Your task to perform on an android device: Open Google Chrome Image 0: 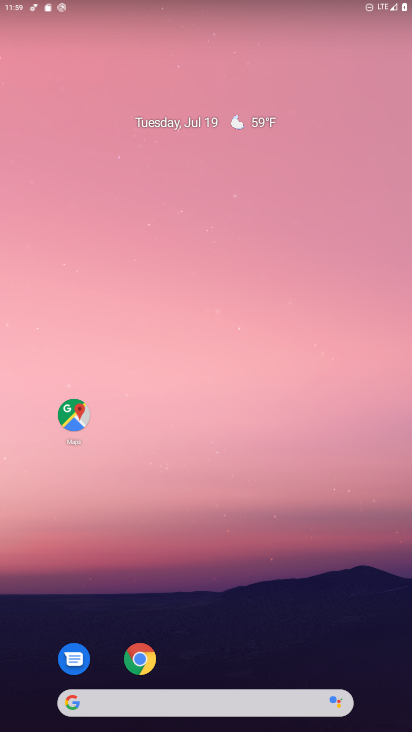
Step 0: drag from (325, 629) to (297, 144)
Your task to perform on an android device: Open Google Chrome Image 1: 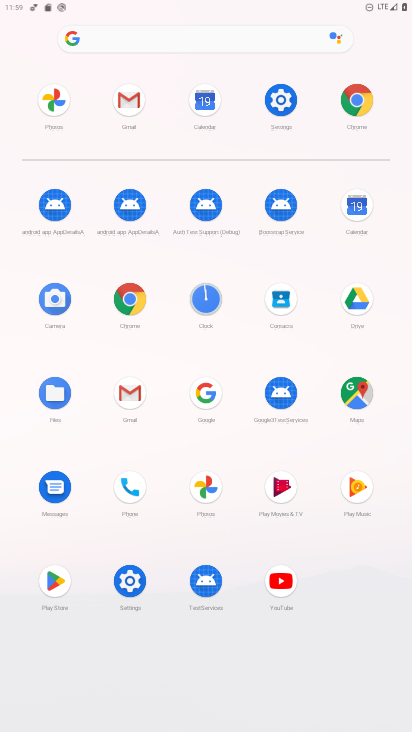
Step 1: click (362, 115)
Your task to perform on an android device: Open Google Chrome Image 2: 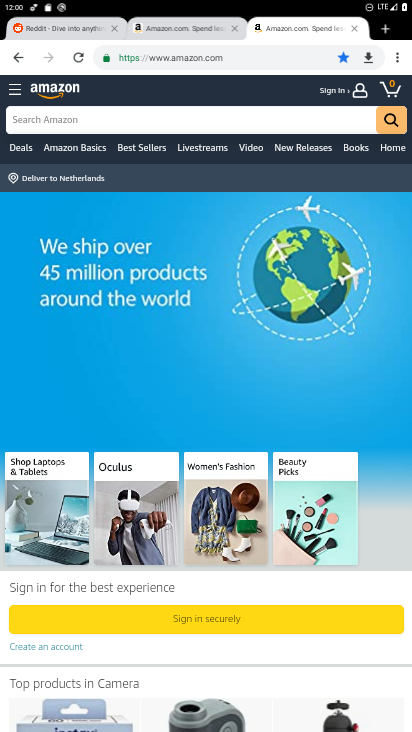
Step 2: task complete